Your task to perform on an android device: Go to notification settings Image 0: 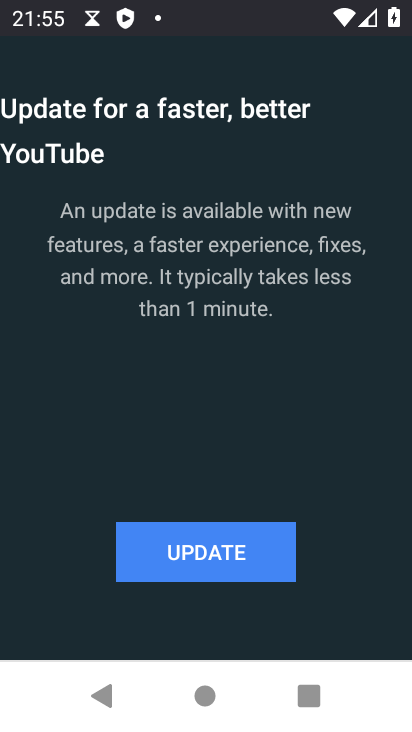
Step 0: press home button
Your task to perform on an android device: Go to notification settings Image 1: 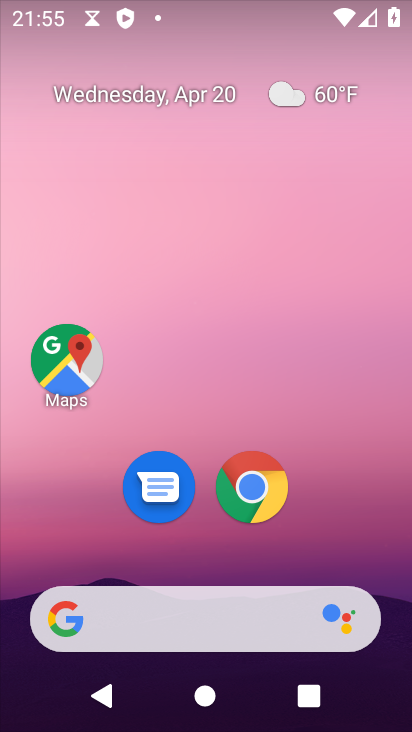
Step 1: drag from (81, 444) to (196, 193)
Your task to perform on an android device: Go to notification settings Image 2: 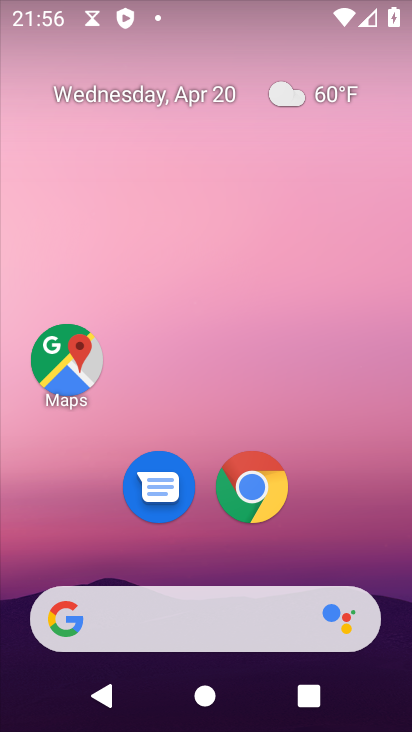
Step 2: drag from (49, 501) to (159, 282)
Your task to perform on an android device: Go to notification settings Image 3: 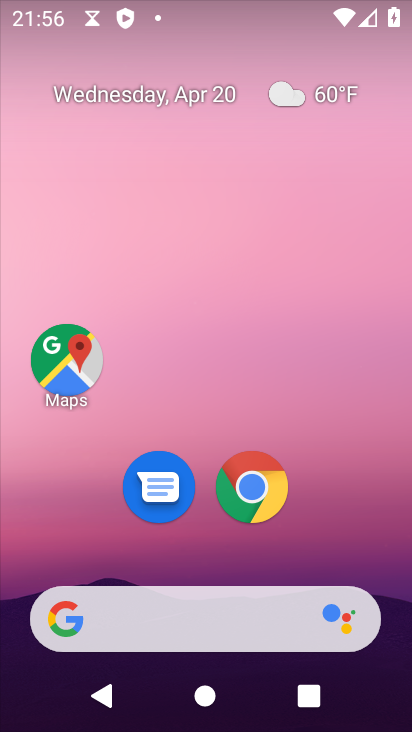
Step 3: drag from (51, 521) to (186, 332)
Your task to perform on an android device: Go to notification settings Image 4: 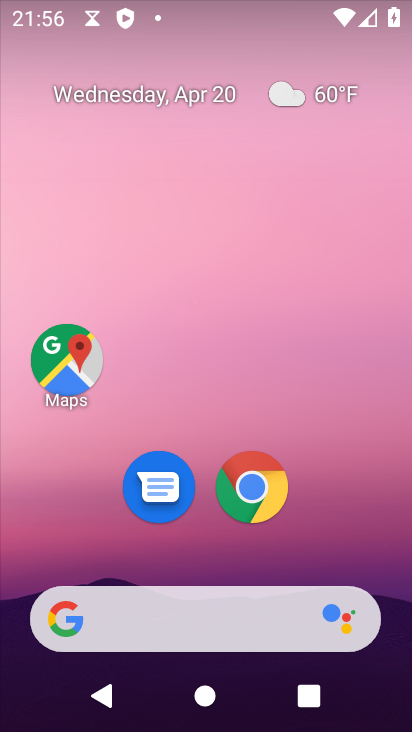
Step 4: drag from (66, 557) to (288, 130)
Your task to perform on an android device: Go to notification settings Image 5: 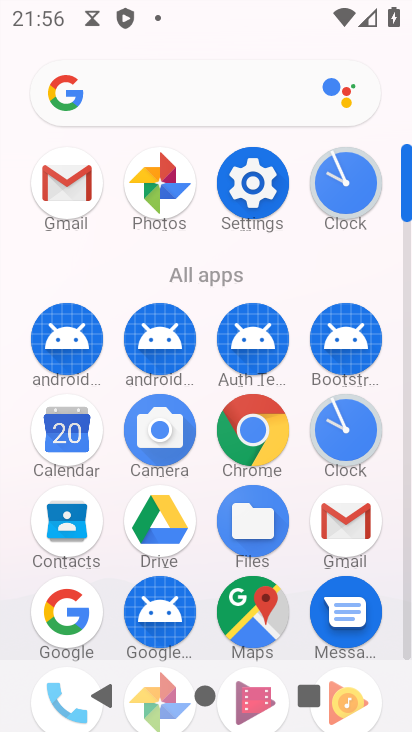
Step 5: click (253, 187)
Your task to perform on an android device: Go to notification settings Image 6: 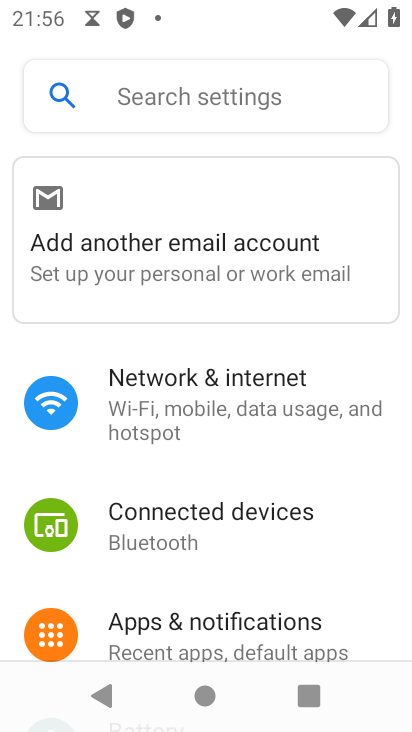
Step 6: click (143, 630)
Your task to perform on an android device: Go to notification settings Image 7: 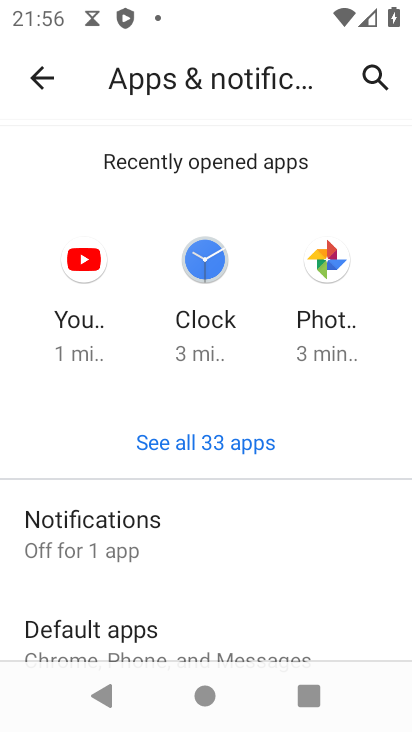
Step 7: drag from (137, 621) to (224, 238)
Your task to perform on an android device: Go to notification settings Image 8: 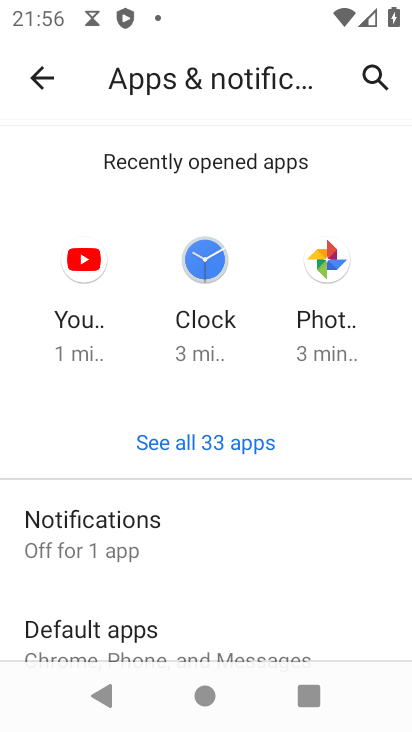
Step 8: drag from (65, 587) to (167, 223)
Your task to perform on an android device: Go to notification settings Image 9: 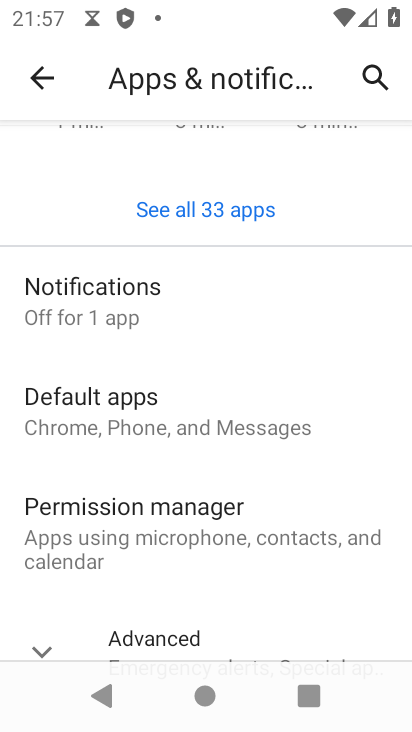
Step 9: click (108, 301)
Your task to perform on an android device: Go to notification settings Image 10: 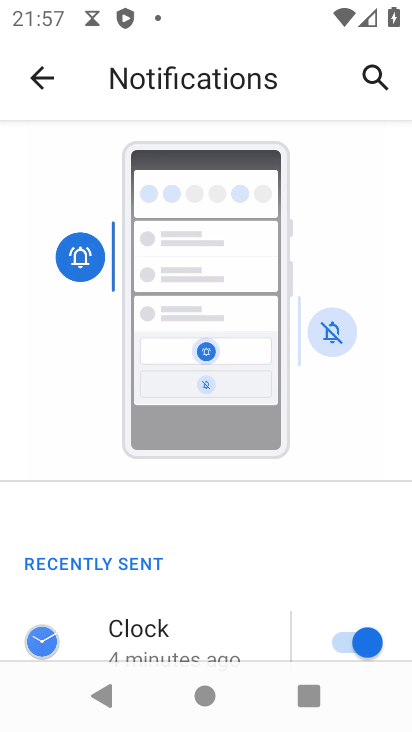
Step 10: task complete